Your task to perform on an android device: find which apps use the phone's location Image 0: 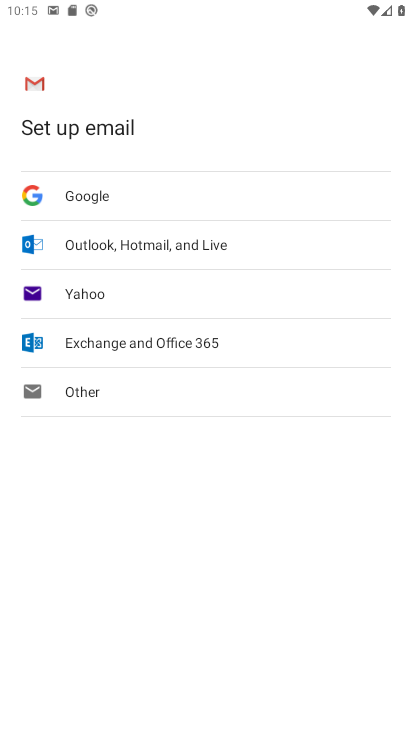
Step 0: press home button
Your task to perform on an android device: find which apps use the phone's location Image 1: 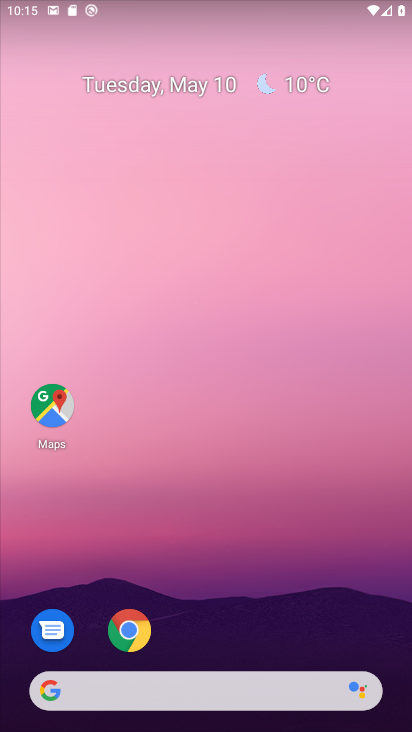
Step 1: drag from (283, 645) to (294, 15)
Your task to perform on an android device: find which apps use the phone's location Image 2: 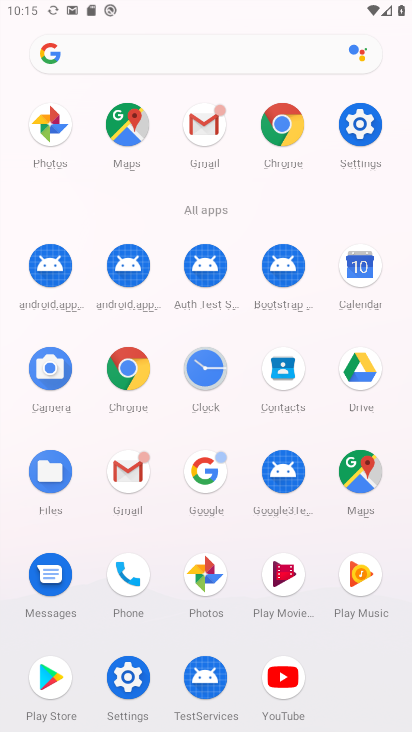
Step 2: click (360, 139)
Your task to perform on an android device: find which apps use the phone's location Image 3: 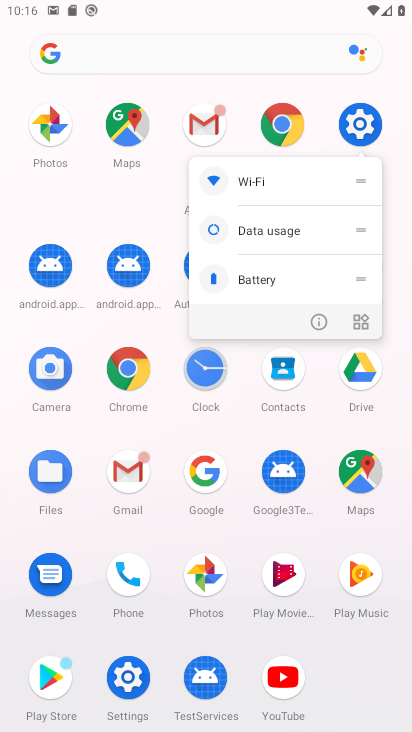
Step 3: click (357, 128)
Your task to perform on an android device: find which apps use the phone's location Image 4: 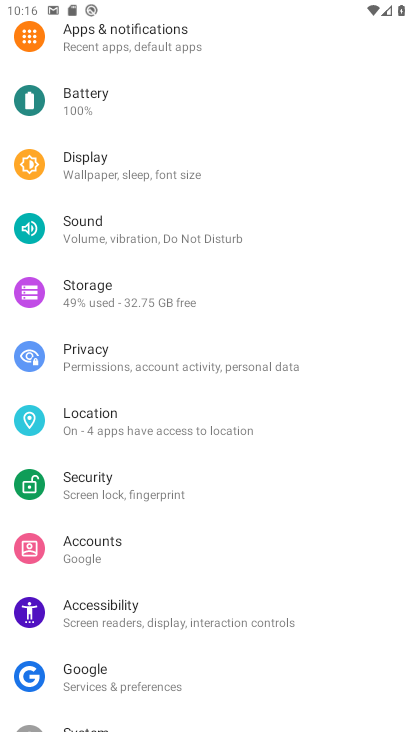
Step 4: click (114, 435)
Your task to perform on an android device: find which apps use the phone's location Image 5: 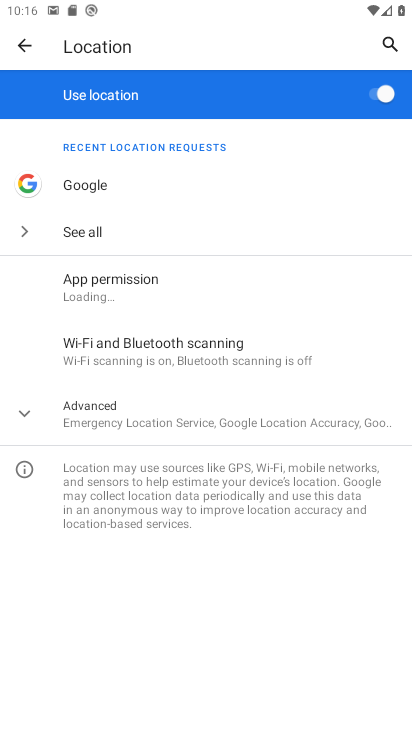
Step 5: click (147, 282)
Your task to perform on an android device: find which apps use the phone's location Image 6: 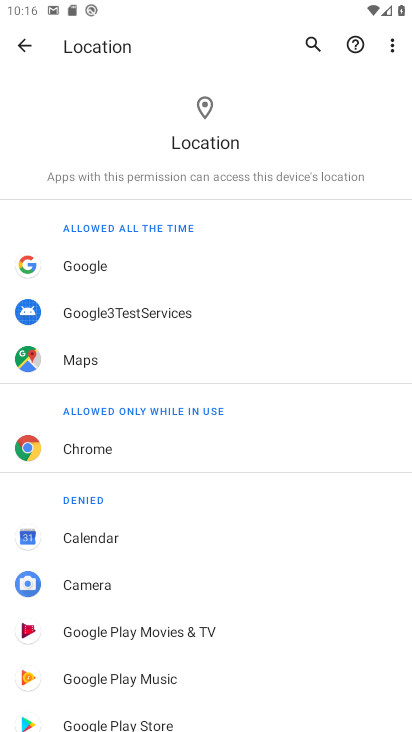
Step 6: task complete